Your task to perform on an android device: change notification settings in the gmail app Image 0: 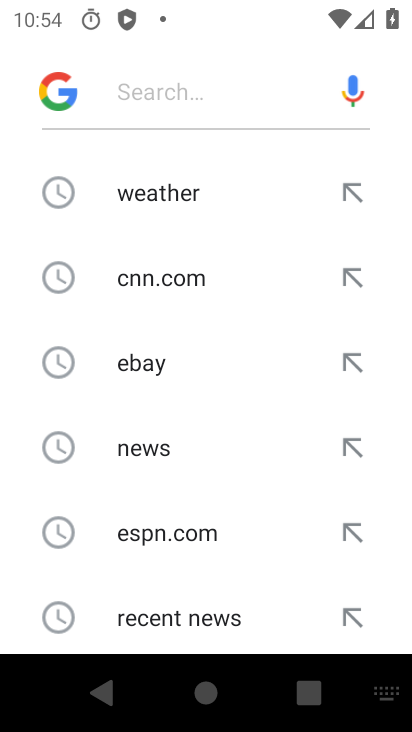
Step 0: press home button
Your task to perform on an android device: change notification settings in the gmail app Image 1: 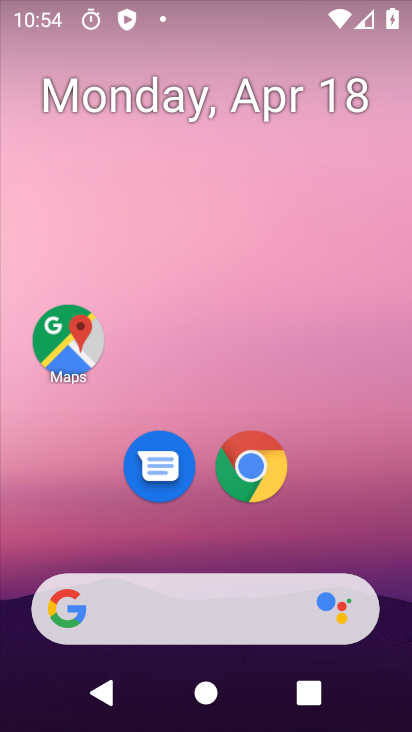
Step 1: drag from (245, 647) to (347, 5)
Your task to perform on an android device: change notification settings in the gmail app Image 2: 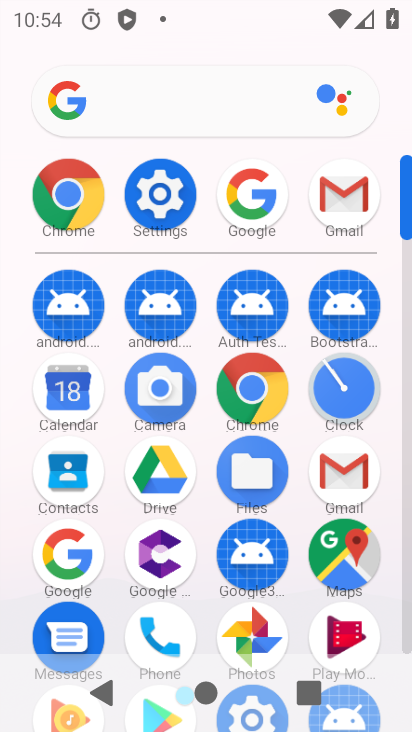
Step 2: click (408, 498)
Your task to perform on an android device: change notification settings in the gmail app Image 3: 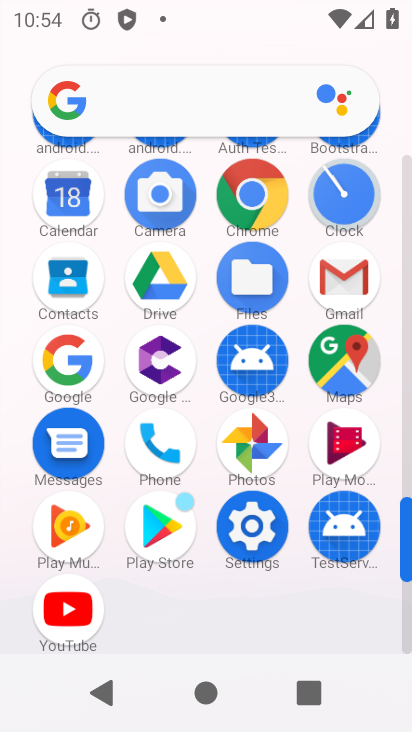
Step 3: click (344, 294)
Your task to perform on an android device: change notification settings in the gmail app Image 4: 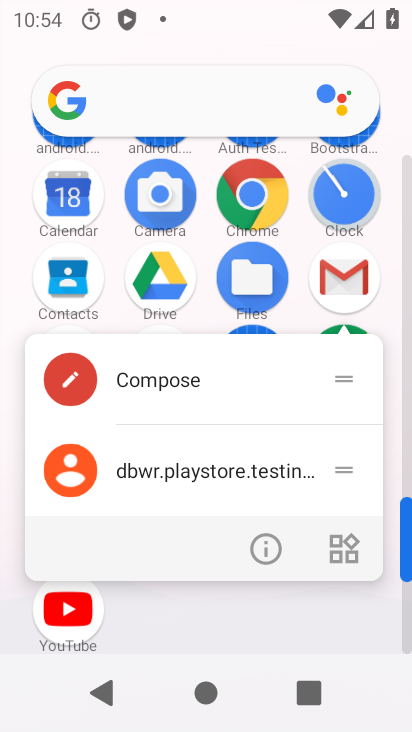
Step 4: click (344, 294)
Your task to perform on an android device: change notification settings in the gmail app Image 5: 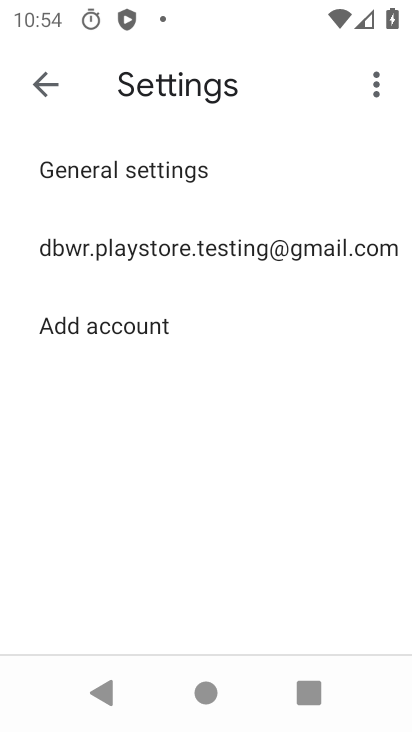
Step 5: click (203, 166)
Your task to perform on an android device: change notification settings in the gmail app Image 6: 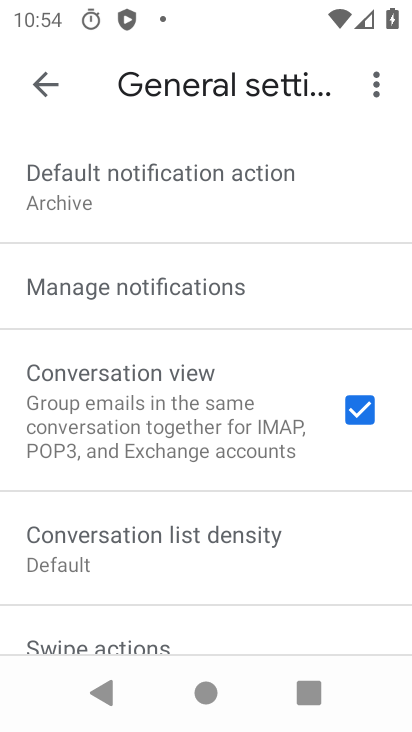
Step 6: click (230, 285)
Your task to perform on an android device: change notification settings in the gmail app Image 7: 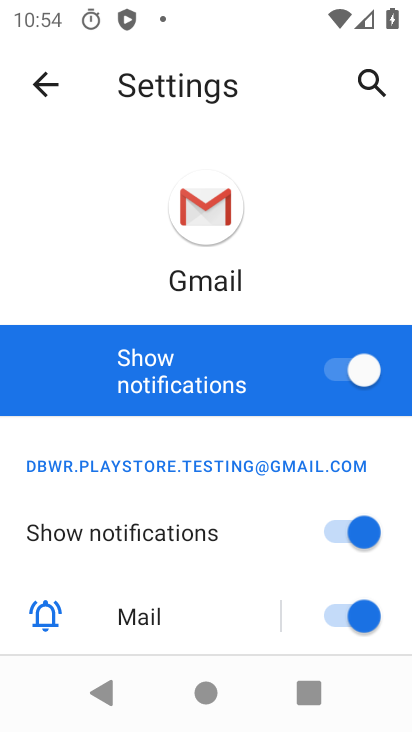
Step 7: drag from (196, 539) to (211, 318)
Your task to perform on an android device: change notification settings in the gmail app Image 8: 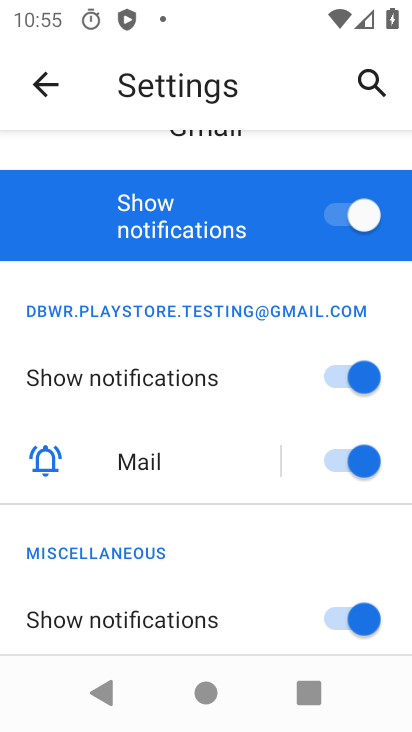
Step 8: click (329, 219)
Your task to perform on an android device: change notification settings in the gmail app Image 9: 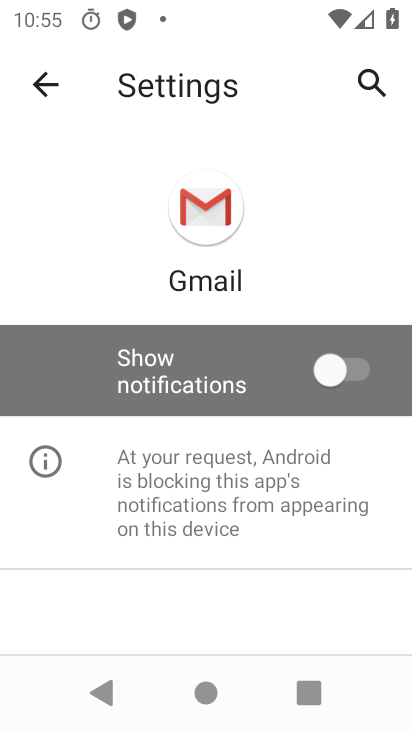
Step 9: task complete